Your task to perform on an android device: turn on airplane mode Image 0: 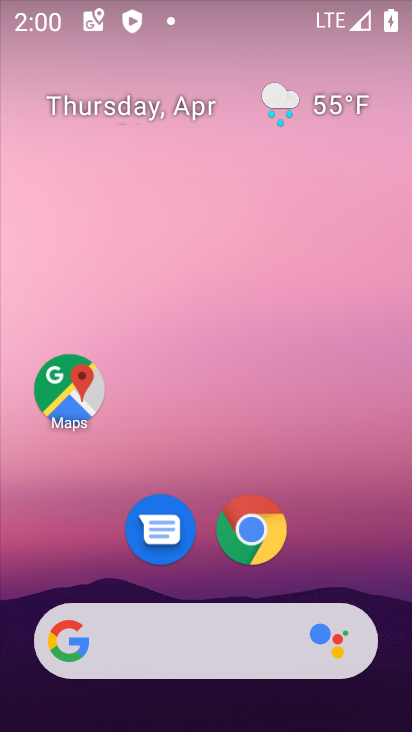
Step 0: drag from (157, 526) to (315, 250)
Your task to perform on an android device: turn on airplane mode Image 1: 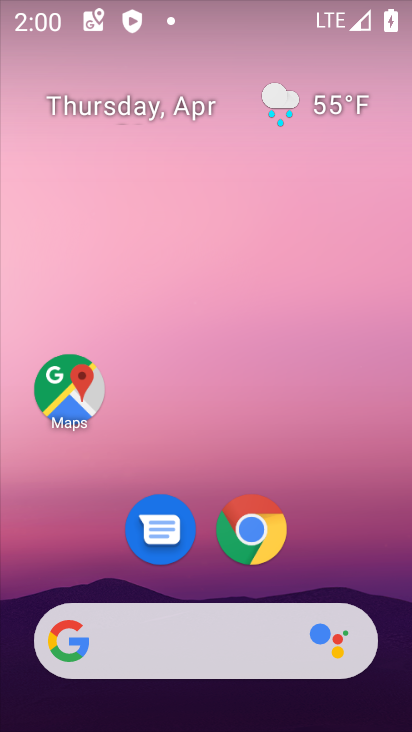
Step 1: drag from (34, 601) to (292, 175)
Your task to perform on an android device: turn on airplane mode Image 2: 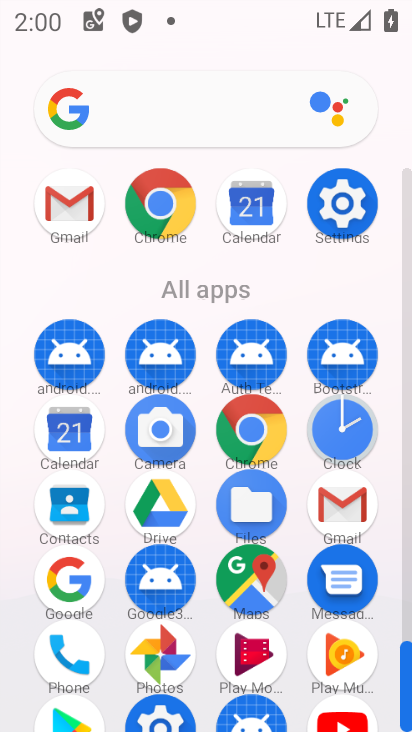
Step 2: click (336, 214)
Your task to perform on an android device: turn on airplane mode Image 3: 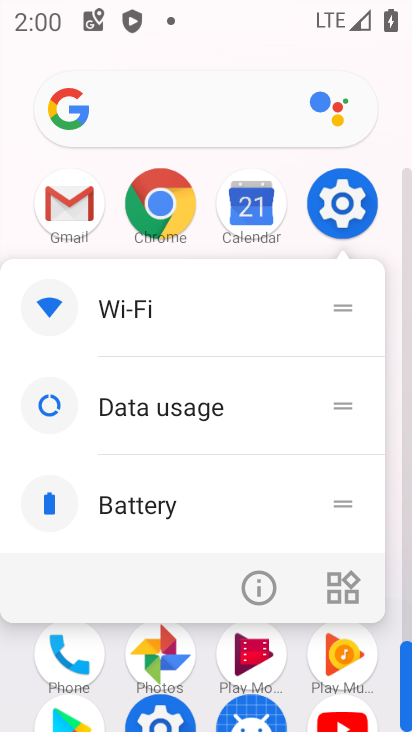
Step 3: click (272, 599)
Your task to perform on an android device: turn on airplane mode Image 4: 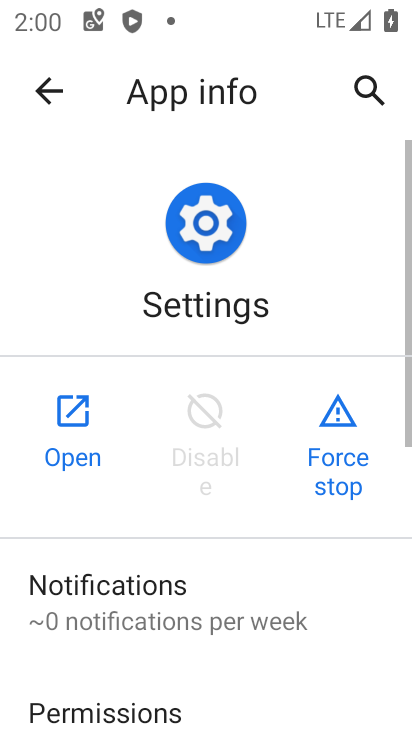
Step 4: click (91, 470)
Your task to perform on an android device: turn on airplane mode Image 5: 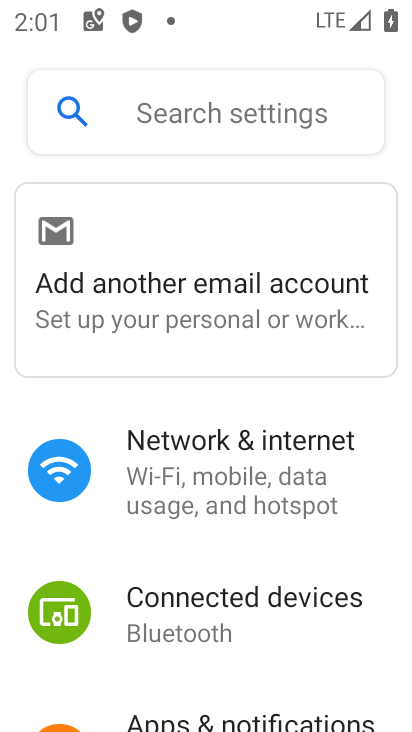
Step 5: click (215, 465)
Your task to perform on an android device: turn on airplane mode Image 6: 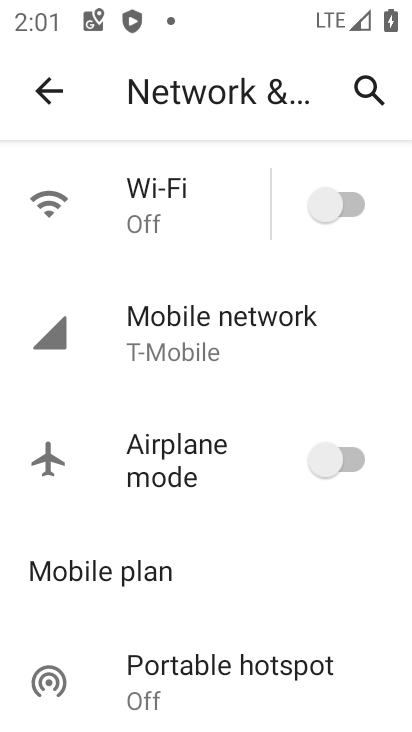
Step 6: click (324, 463)
Your task to perform on an android device: turn on airplane mode Image 7: 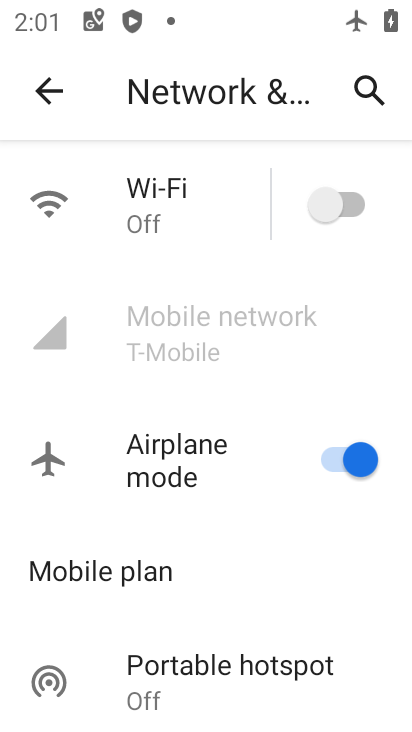
Step 7: task complete